Your task to perform on an android device: change timer sound Image 0: 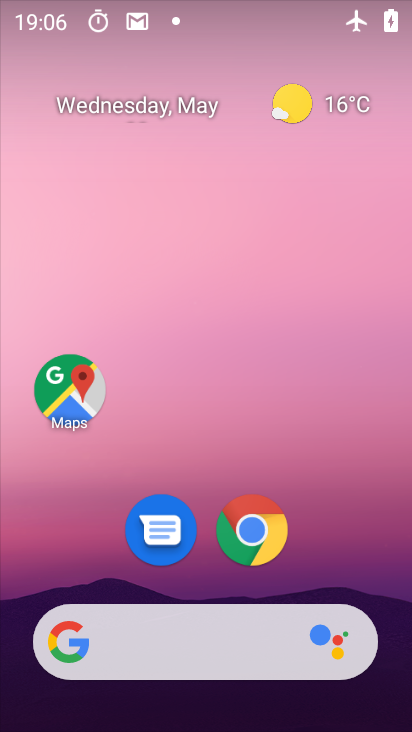
Step 0: drag from (197, 600) to (223, 209)
Your task to perform on an android device: change timer sound Image 1: 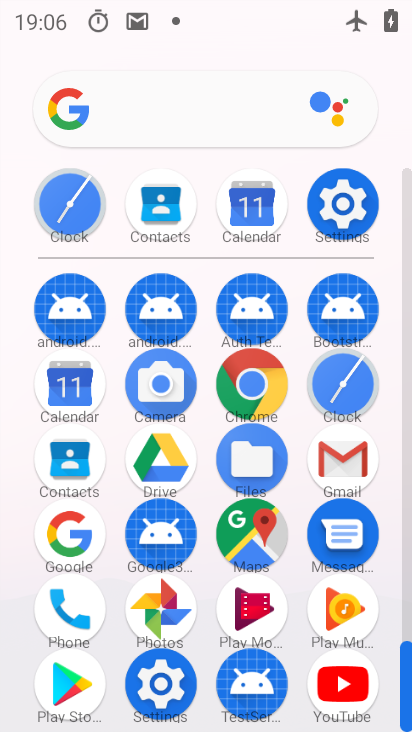
Step 1: click (335, 397)
Your task to perform on an android device: change timer sound Image 2: 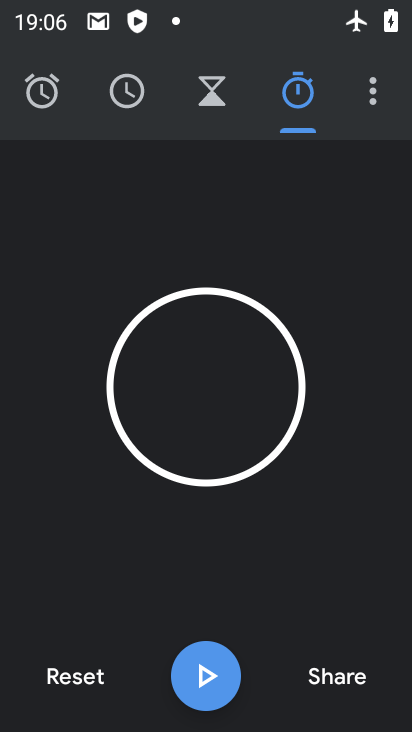
Step 2: click (372, 87)
Your task to perform on an android device: change timer sound Image 3: 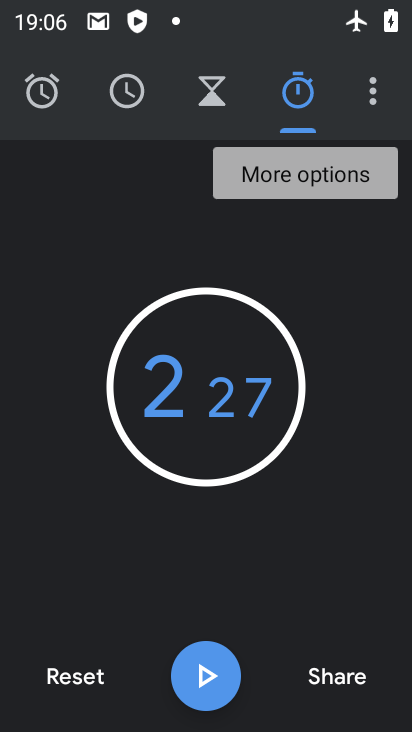
Step 3: click (370, 101)
Your task to perform on an android device: change timer sound Image 4: 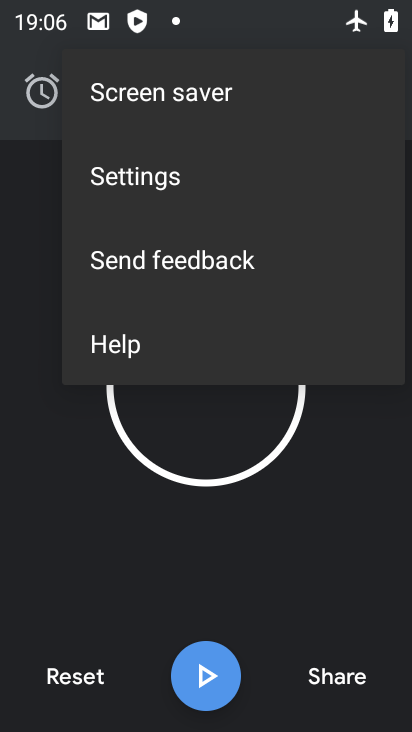
Step 4: click (173, 186)
Your task to perform on an android device: change timer sound Image 5: 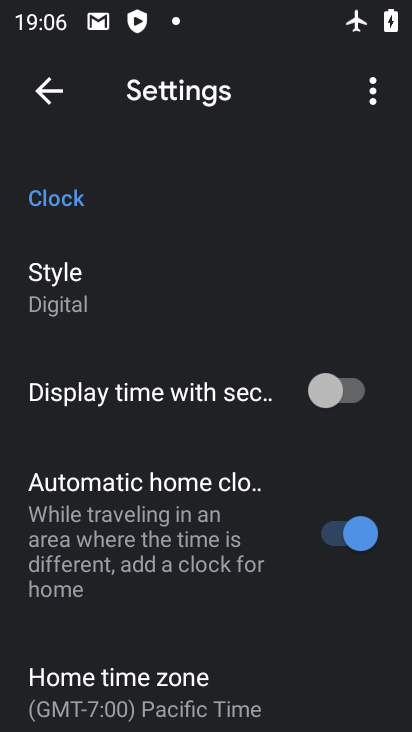
Step 5: drag from (133, 633) to (201, 207)
Your task to perform on an android device: change timer sound Image 6: 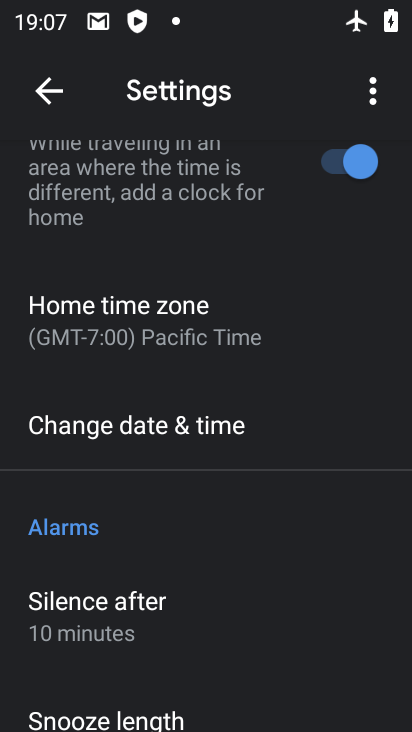
Step 6: drag from (181, 518) to (206, 252)
Your task to perform on an android device: change timer sound Image 7: 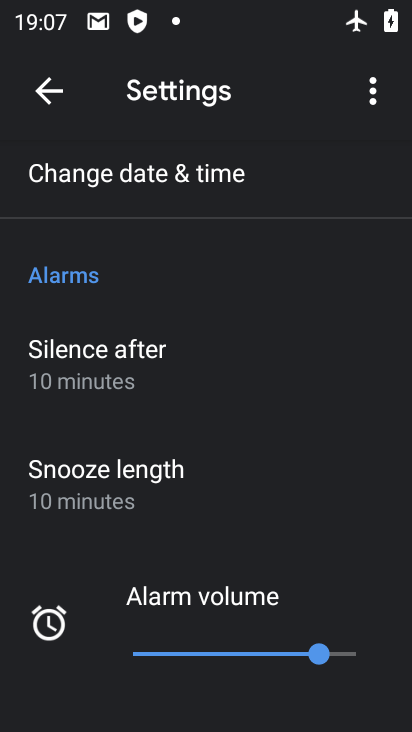
Step 7: drag from (131, 562) to (186, 265)
Your task to perform on an android device: change timer sound Image 8: 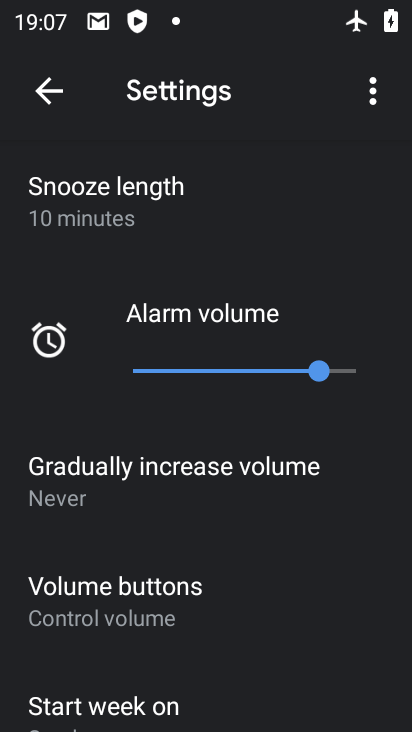
Step 8: drag from (101, 606) to (172, 197)
Your task to perform on an android device: change timer sound Image 9: 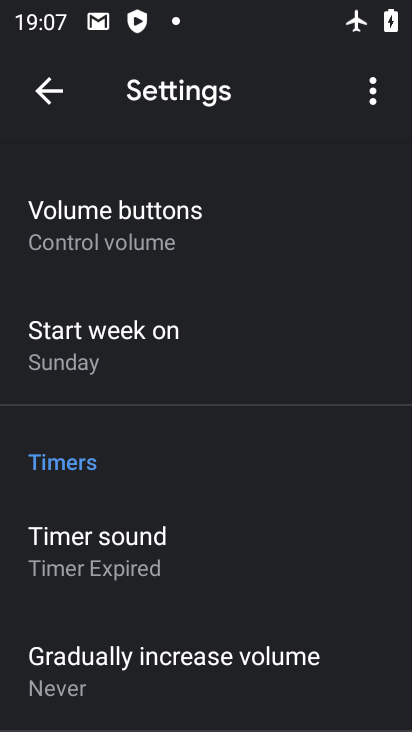
Step 9: click (130, 531)
Your task to perform on an android device: change timer sound Image 10: 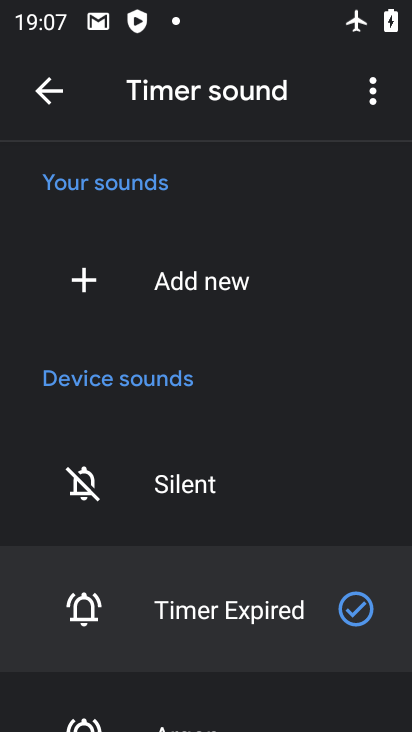
Step 10: drag from (209, 532) to (249, 291)
Your task to perform on an android device: change timer sound Image 11: 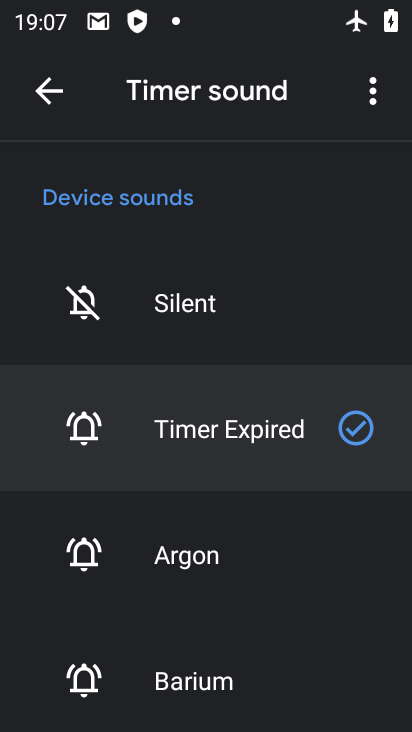
Step 11: click (191, 547)
Your task to perform on an android device: change timer sound Image 12: 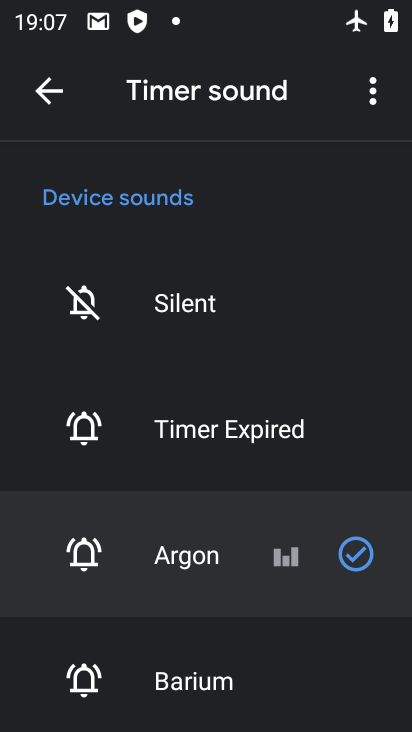
Step 12: task complete